Your task to perform on an android device: Go to accessibility settings Image 0: 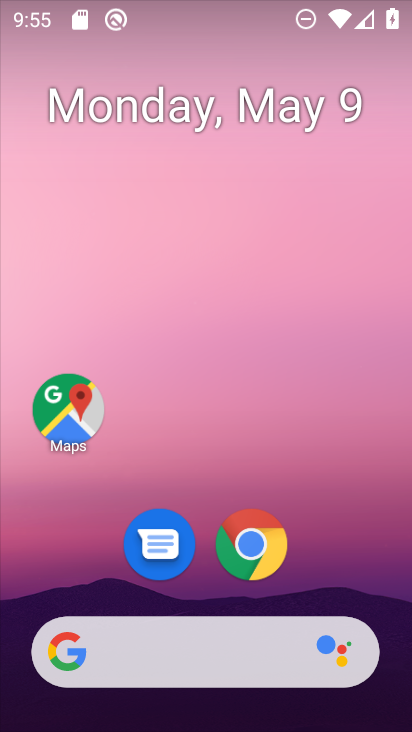
Step 0: drag from (328, 549) to (233, 9)
Your task to perform on an android device: Go to accessibility settings Image 1: 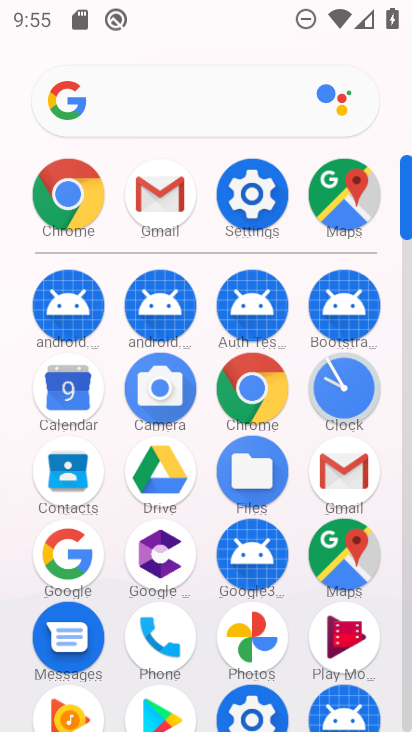
Step 1: click (247, 197)
Your task to perform on an android device: Go to accessibility settings Image 2: 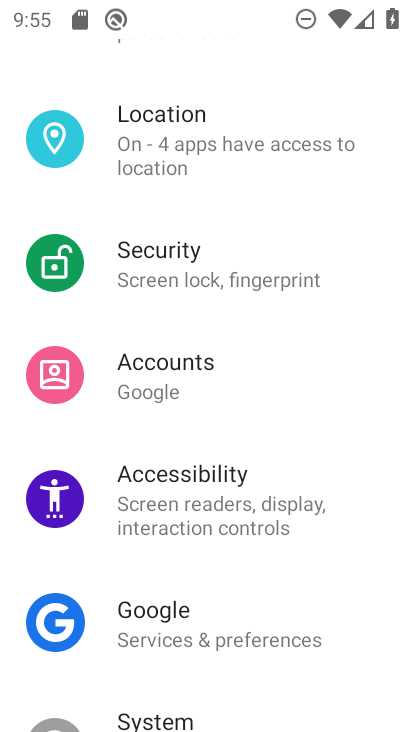
Step 2: click (201, 476)
Your task to perform on an android device: Go to accessibility settings Image 3: 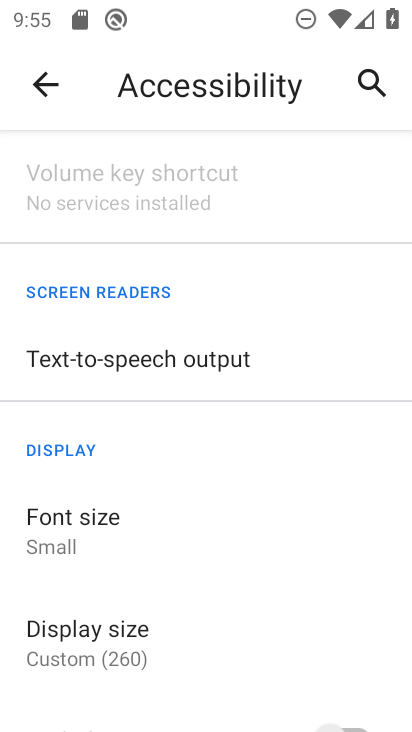
Step 3: task complete